Your task to perform on an android device: Go to Yahoo.com Image 0: 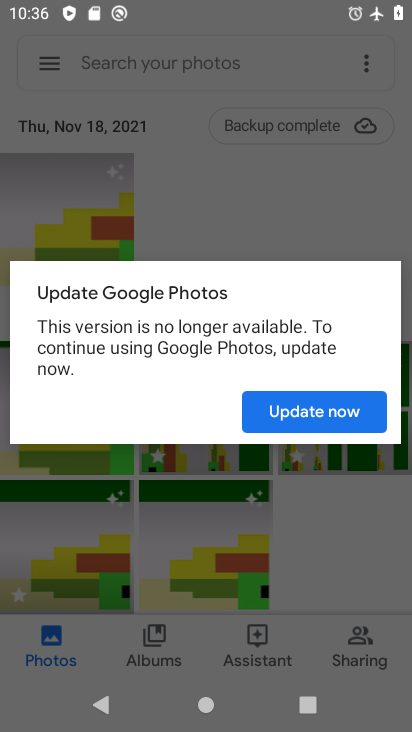
Step 0: press back button
Your task to perform on an android device: Go to Yahoo.com Image 1: 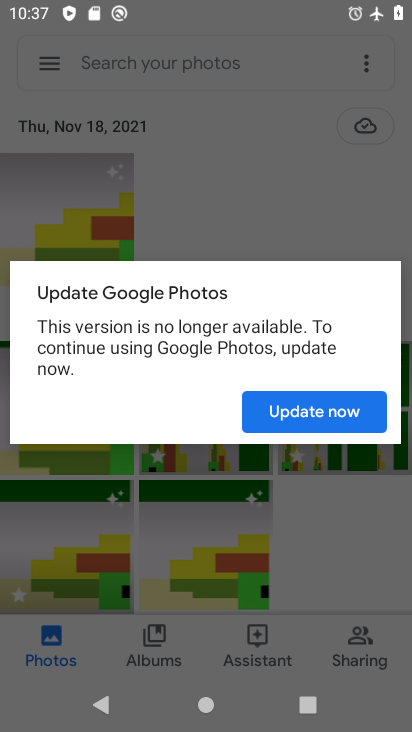
Step 1: press home button
Your task to perform on an android device: Go to Yahoo.com Image 2: 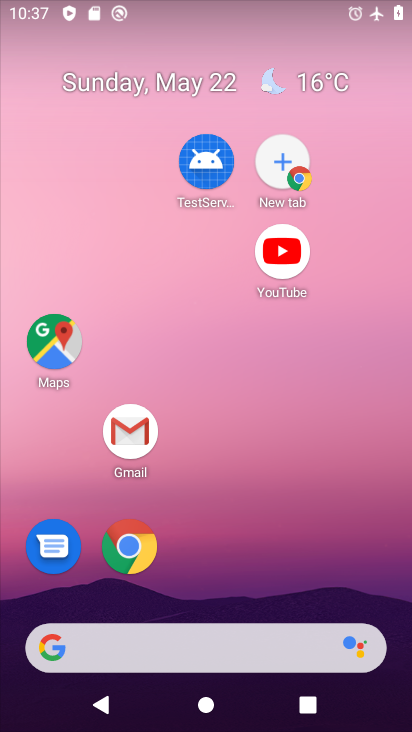
Step 2: drag from (243, 682) to (238, 36)
Your task to perform on an android device: Go to Yahoo.com Image 3: 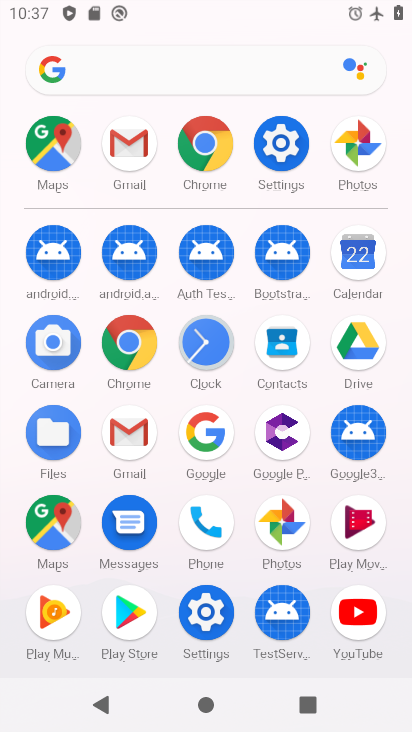
Step 3: click (198, 139)
Your task to perform on an android device: Go to Yahoo.com Image 4: 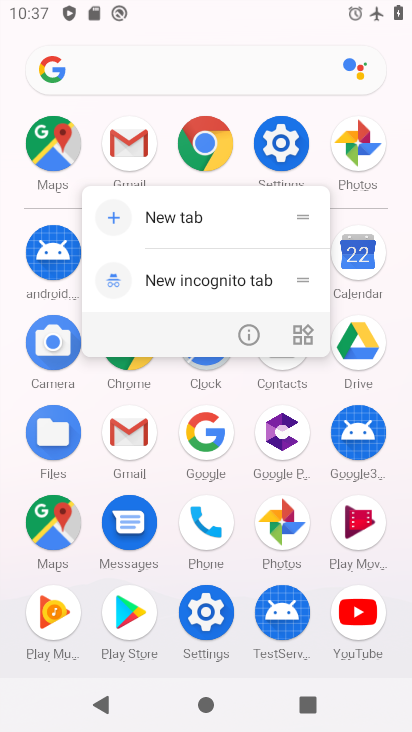
Step 4: click (198, 139)
Your task to perform on an android device: Go to Yahoo.com Image 5: 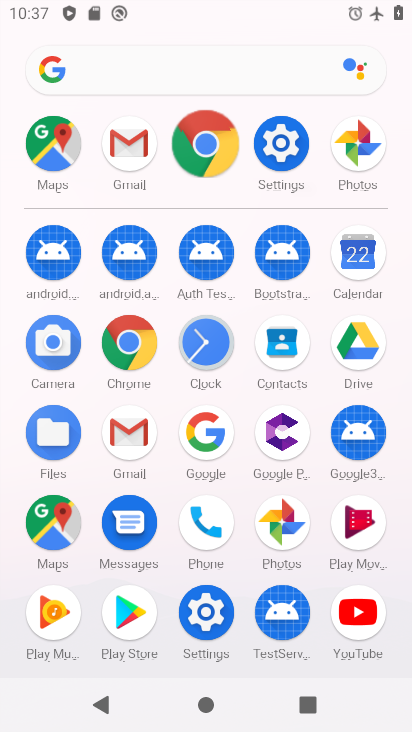
Step 5: drag from (198, 139) to (218, 181)
Your task to perform on an android device: Go to Yahoo.com Image 6: 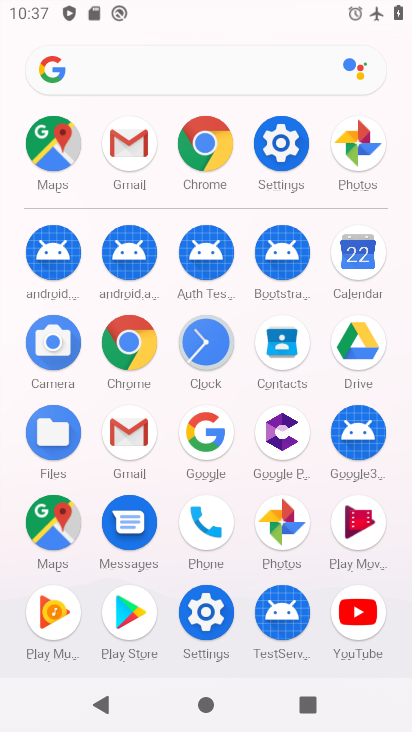
Step 6: click (215, 171)
Your task to perform on an android device: Go to Yahoo.com Image 7: 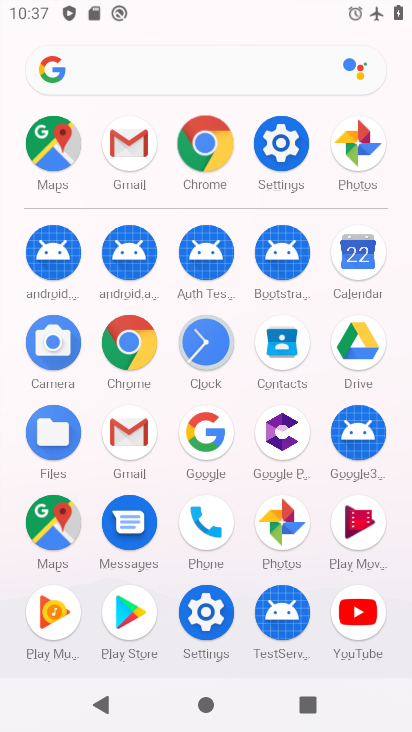
Step 7: click (188, 128)
Your task to perform on an android device: Go to Yahoo.com Image 8: 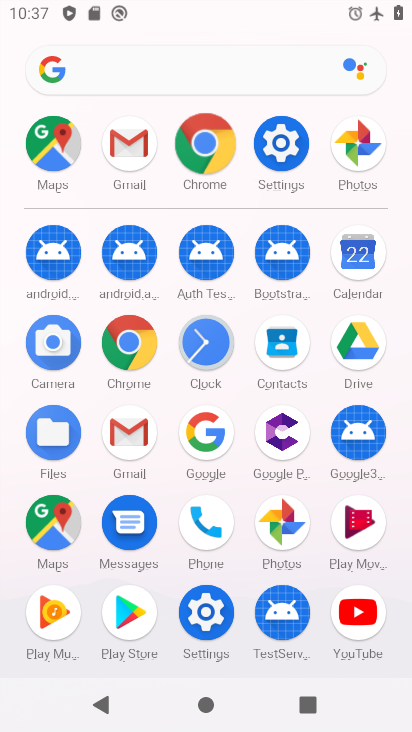
Step 8: click (199, 134)
Your task to perform on an android device: Go to Yahoo.com Image 9: 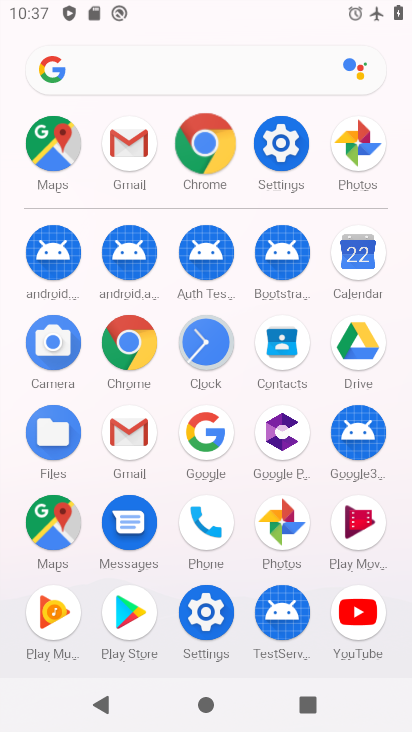
Step 9: click (199, 134)
Your task to perform on an android device: Go to Yahoo.com Image 10: 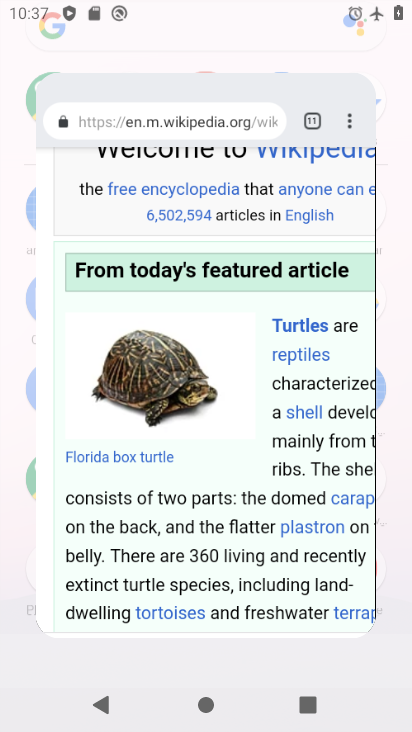
Step 10: click (200, 134)
Your task to perform on an android device: Go to Yahoo.com Image 11: 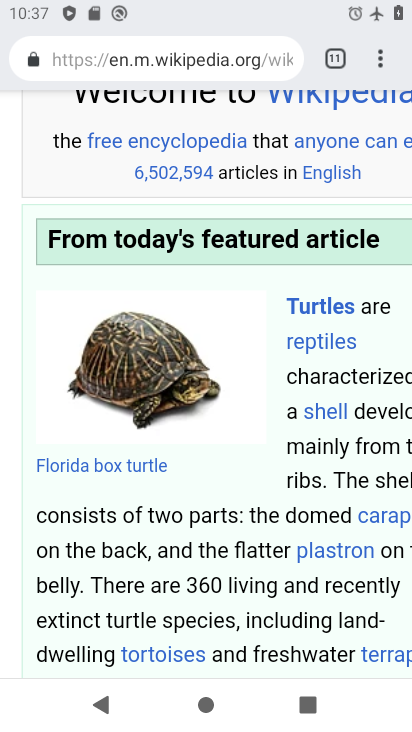
Step 11: click (202, 124)
Your task to perform on an android device: Go to Yahoo.com Image 12: 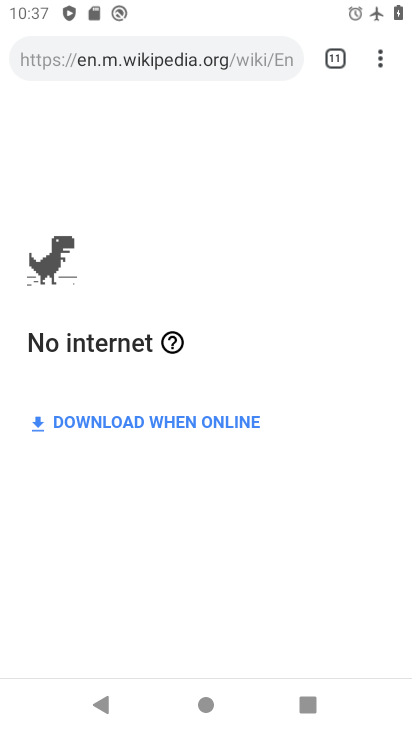
Step 12: drag from (378, 54) to (169, 120)
Your task to perform on an android device: Go to Yahoo.com Image 13: 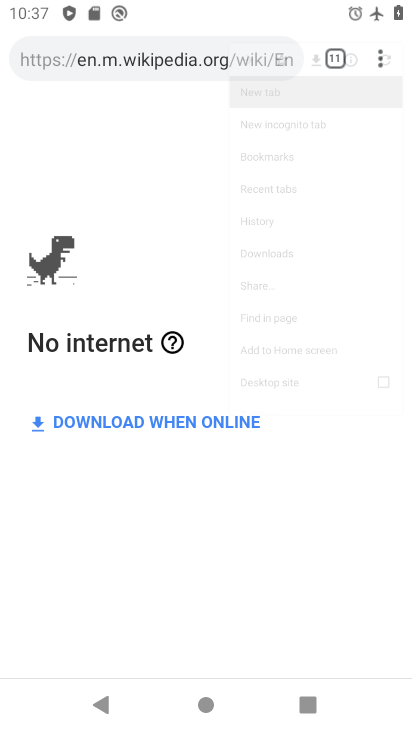
Step 13: click (167, 119)
Your task to perform on an android device: Go to Yahoo.com Image 14: 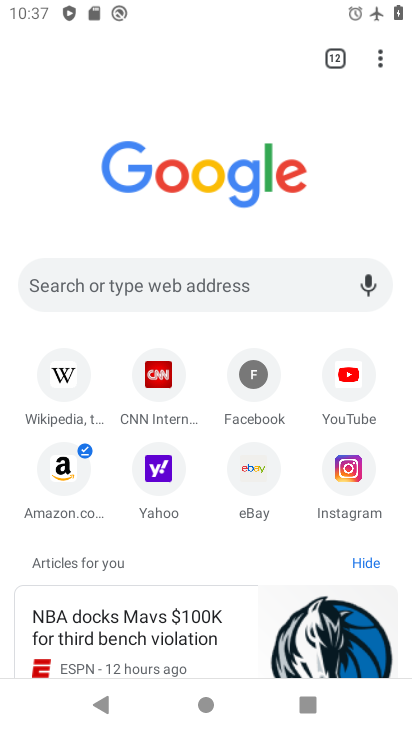
Step 14: click (158, 471)
Your task to perform on an android device: Go to Yahoo.com Image 15: 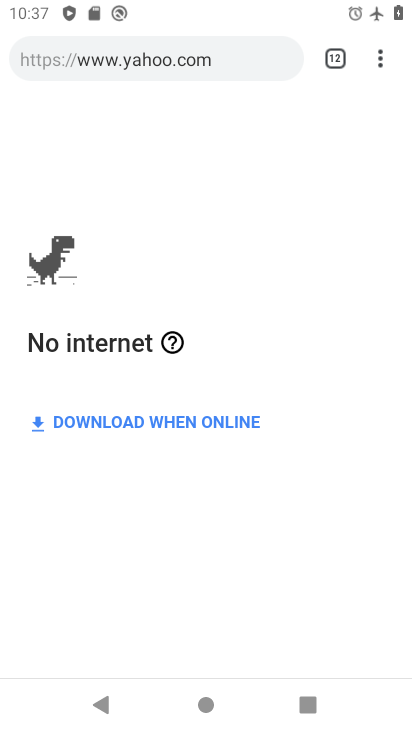
Step 15: task complete